Your task to perform on an android device: check android version Image 0: 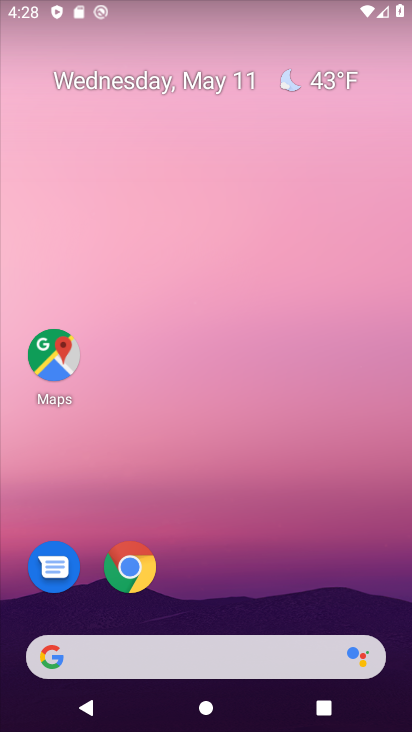
Step 0: drag from (224, 579) to (304, 124)
Your task to perform on an android device: check android version Image 1: 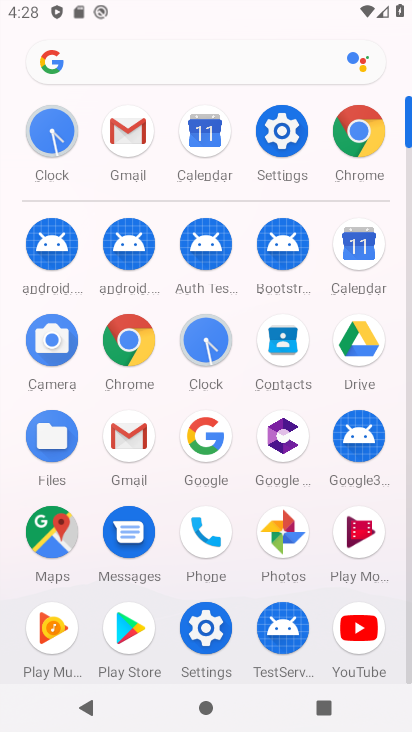
Step 1: click (293, 146)
Your task to perform on an android device: check android version Image 2: 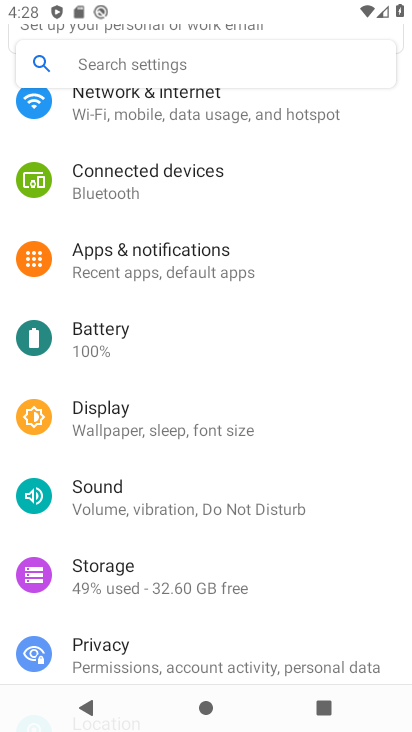
Step 2: drag from (281, 628) to (388, 118)
Your task to perform on an android device: check android version Image 3: 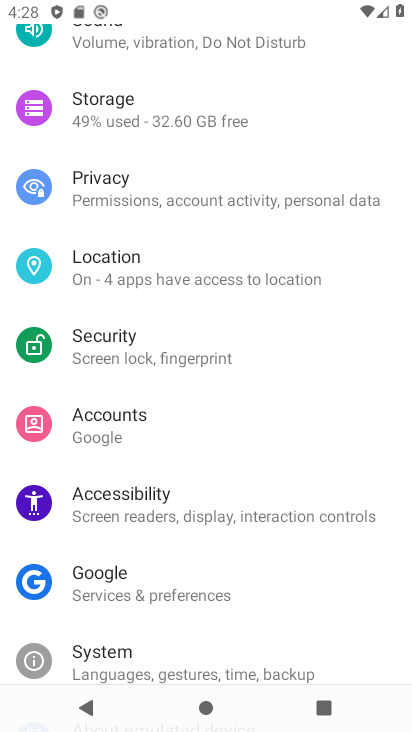
Step 3: drag from (238, 564) to (318, 134)
Your task to perform on an android device: check android version Image 4: 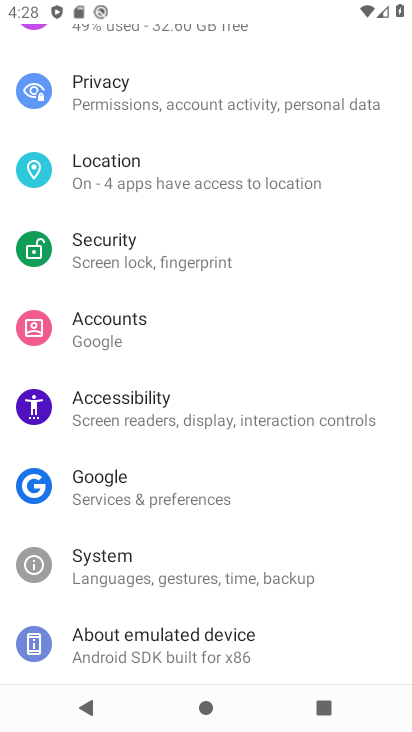
Step 4: click (241, 651)
Your task to perform on an android device: check android version Image 5: 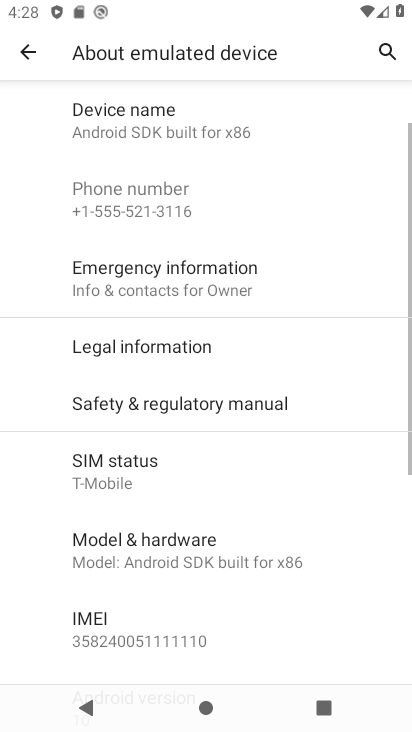
Step 5: drag from (280, 595) to (368, 80)
Your task to perform on an android device: check android version Image 6: 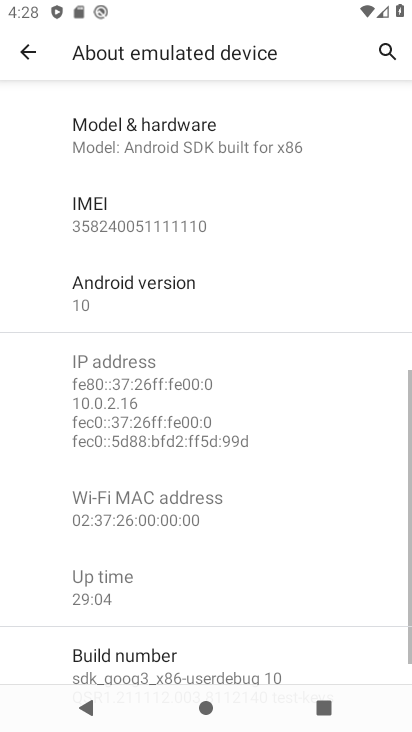
Step 6: click (221, 286)
Your task to perform on an android device: check android version Image 7: 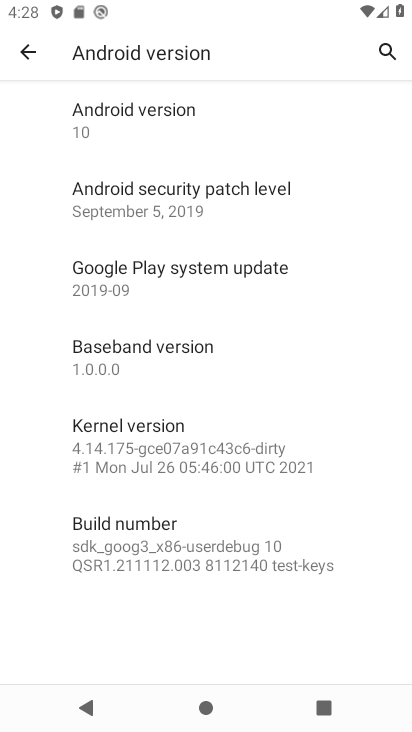
Step 7: task complete